Your task to perform on an android device: change alarm snooze length Image 0: 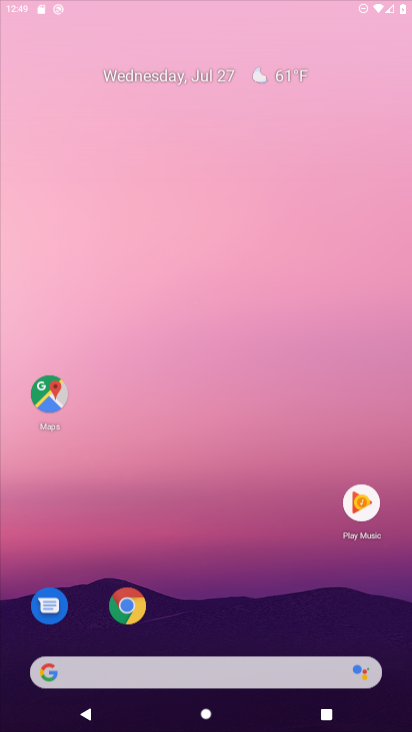
Step 0: press home button
Your task to perform on an android device: change alarm snooze length Image 1: 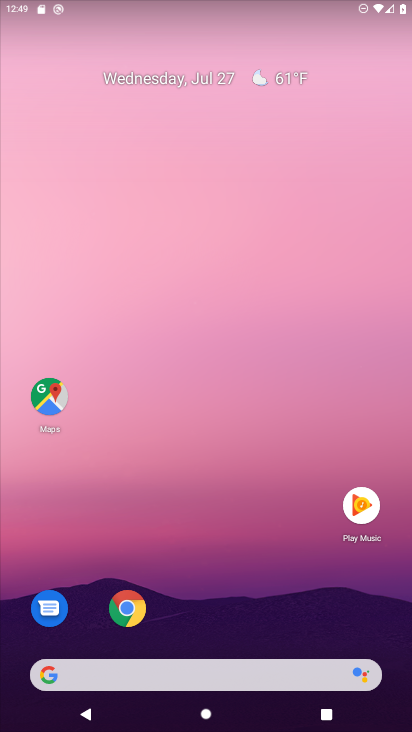
Step 1: drag from (306, 312) to (321, 188)
Your task to perform on an android device: change alarm snooze length Image 2: 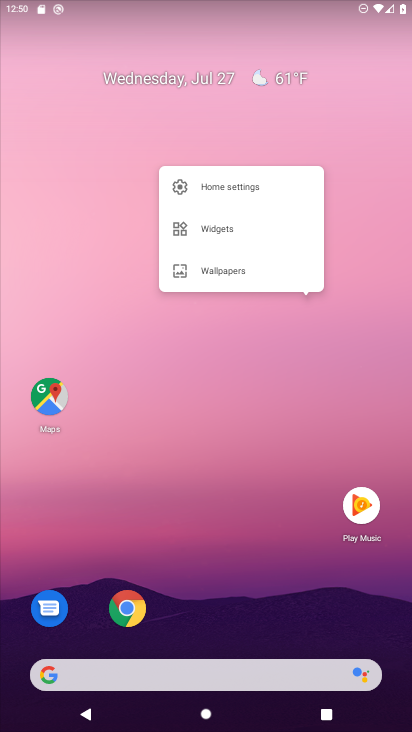
Step 2: drag from (275, 577) to (251, 190)
Your task to perform on an android device: change alarm snooze length Image 3: 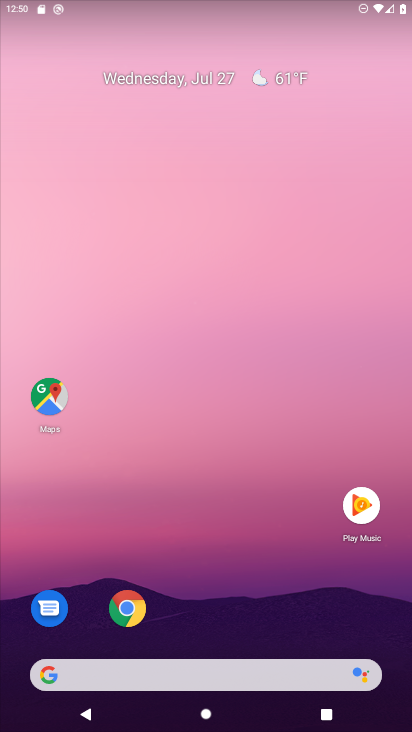
Step 3: press home button
Your task to perform on an android device: change alarm snooze length Image 4: 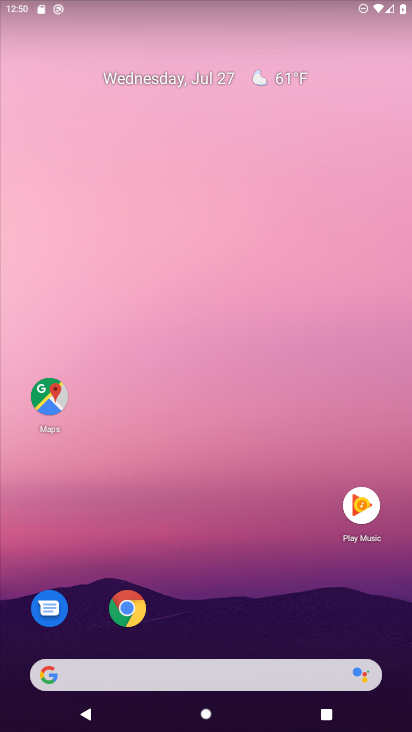
Step 4: drag from (284, 604) to (274, 71)
Your task to perform on an android device: change alarm snooze length Image 5: 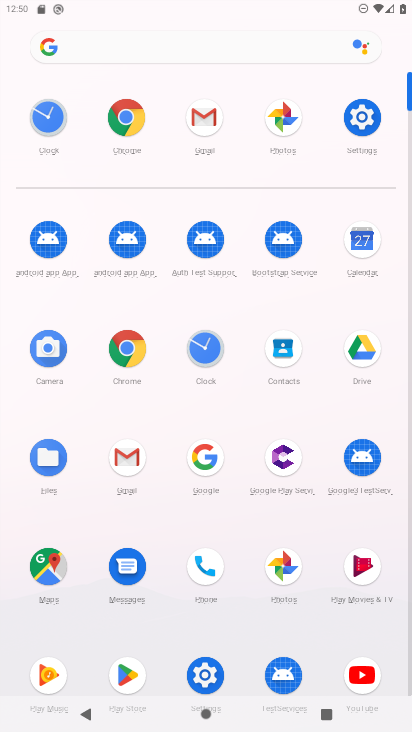
Step 5: click (213, 359)
Your task to perform on an android device: change alarm snooze length Image 6: 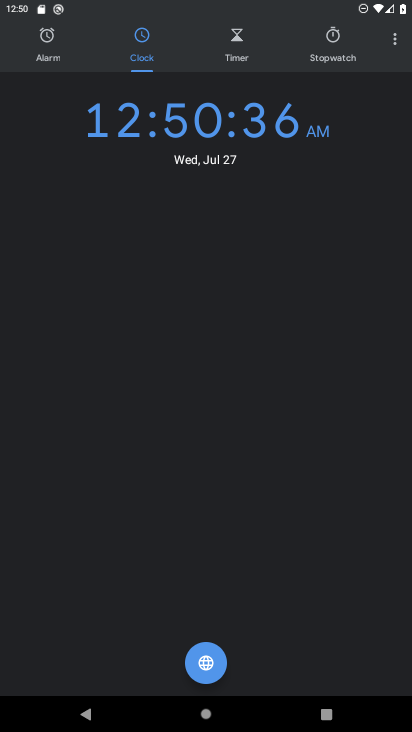
Step 6: click (393, 43)
Your task to perform on an android device: change alarm snooze length Image 7: 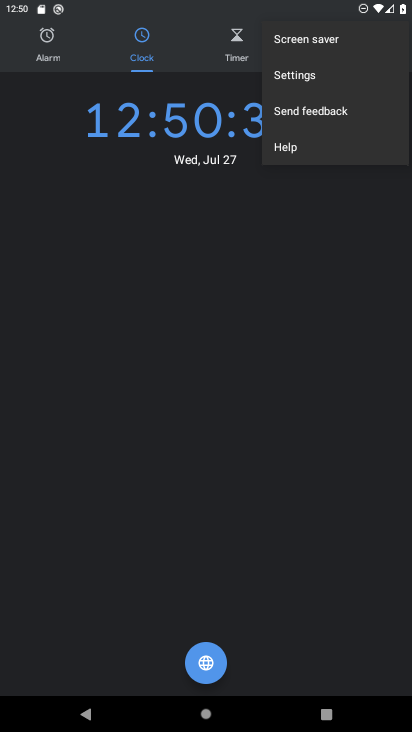
Step 7: click (343, 75)
Your task to perform on an android device: change alarm snooze length Image 8: 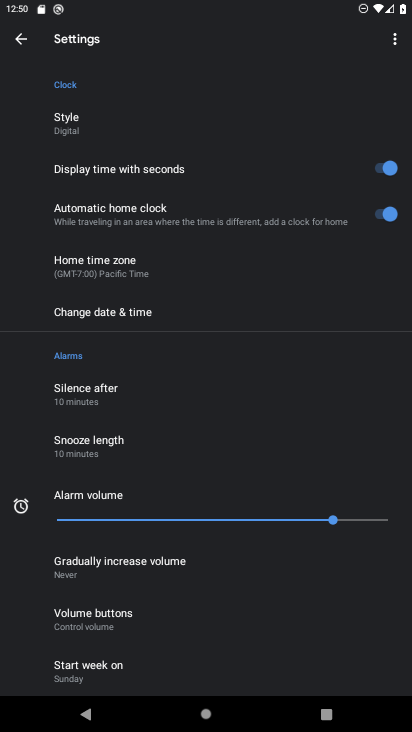
Step 8: drag from (247, 558) to (253, 524)
Your task to perform on an android device: change alarm snooze length Image 9: 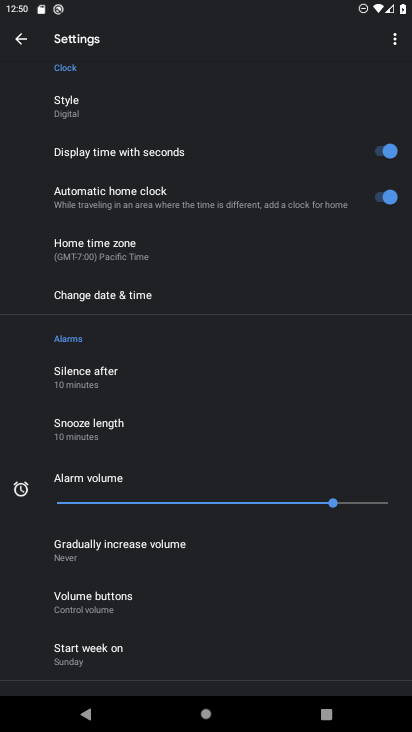
Step 9: drag from (253, 585) to (257, 536)
Your task to perform on an android device: change alarm snooze length Image 10: 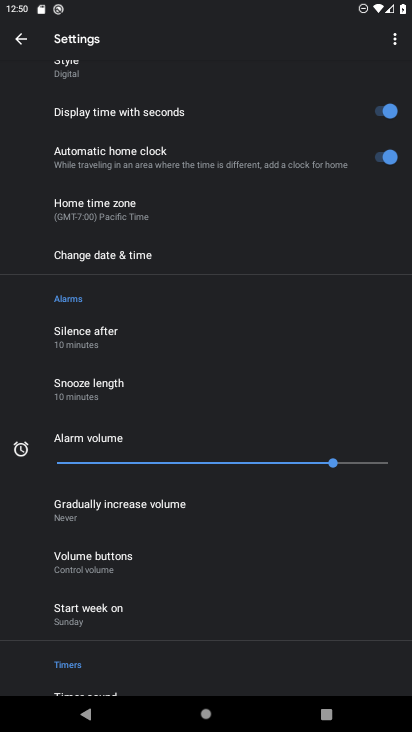
Step 10: drag from (260, 605) to (263, 547)
Your task to perform on an android device: change alarm snooze length Image 11: 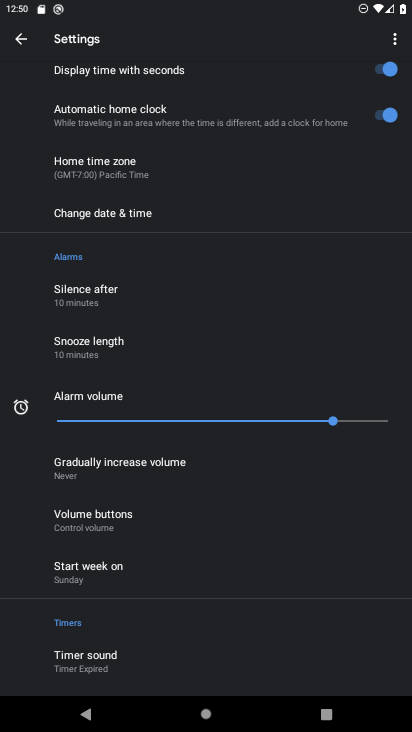
Step 11: drag from (264, 596) to (268, 521)
Your task to perform on an android device: change alarm snooze length Image 12: 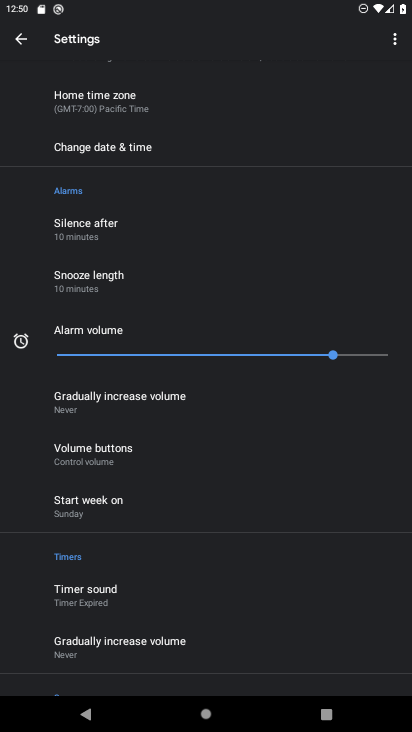
Step 12: drag from (265, 570) to (265, 498)
Your task to perform on an android device: change alarm snooze length Image 13: 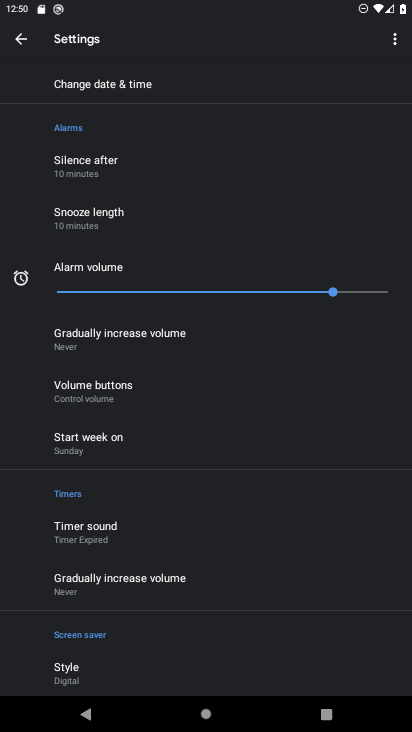
Step 13: drag from (273, 579) to (274, 507)
Your task to perform on an android device: change alarm snooze length Image 14: 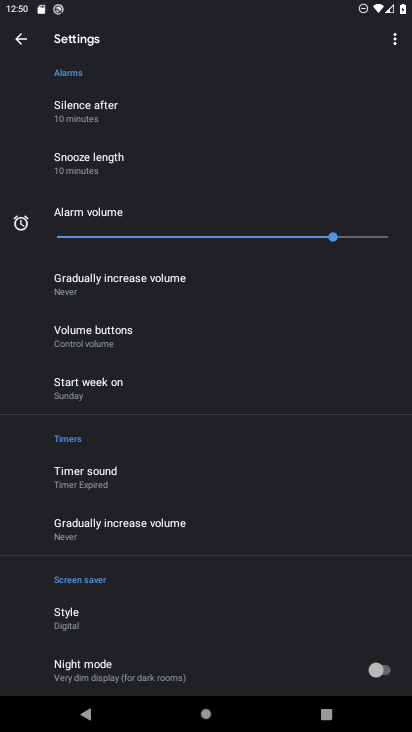
Step 14: drag from (262, 606) to (258, 499)
Your task to perform on an android device: change alarm snooze length Image 15: 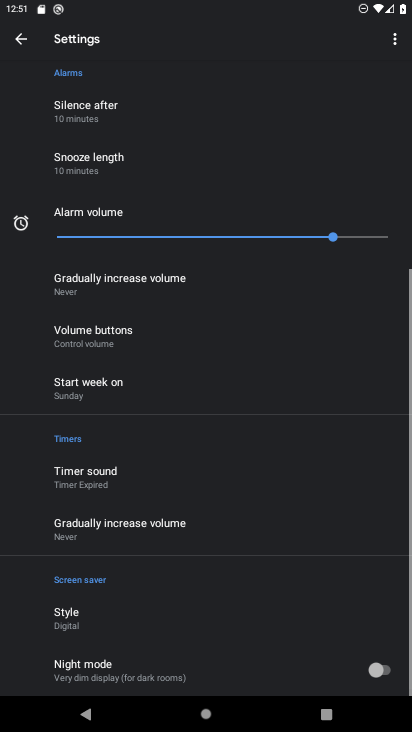
Step 15: drag from (267, 387) to (263, 461)
Your task to perform on an android device: change alarm snooze length Image 16: 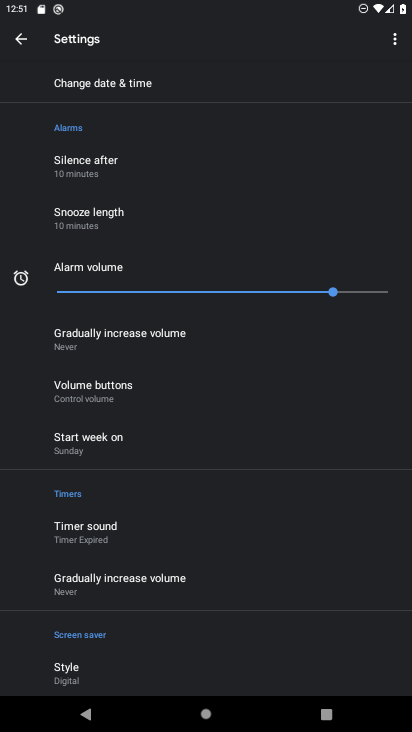
Step 16: drag from (263, 354) to (262, 424)
Your task to perform on an android device: change alarm snooze length Image 17: 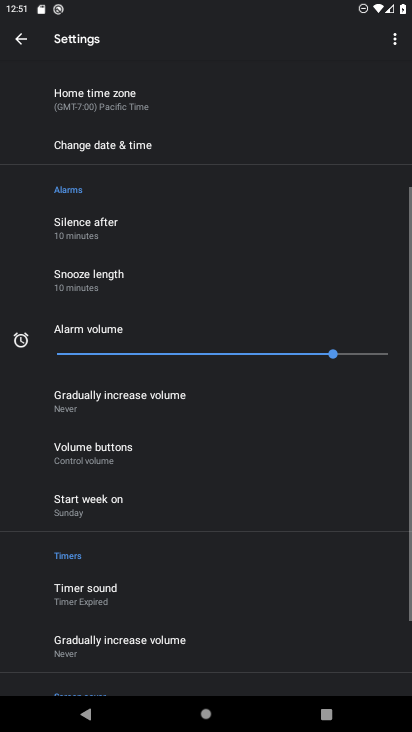
Step 17: drag from (273, 316) to (268, 538)
Your task to perform on an android device: change alarm snooze length Image 18: 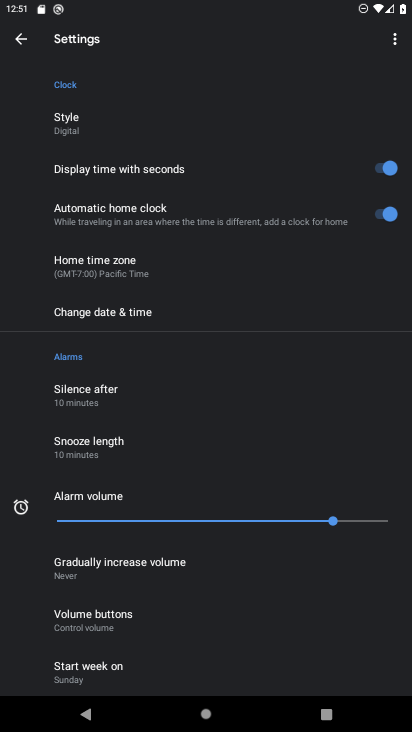
Step 18: click (125, 450)
Your task to perform on an android device: change alarm snooze length Image 19: 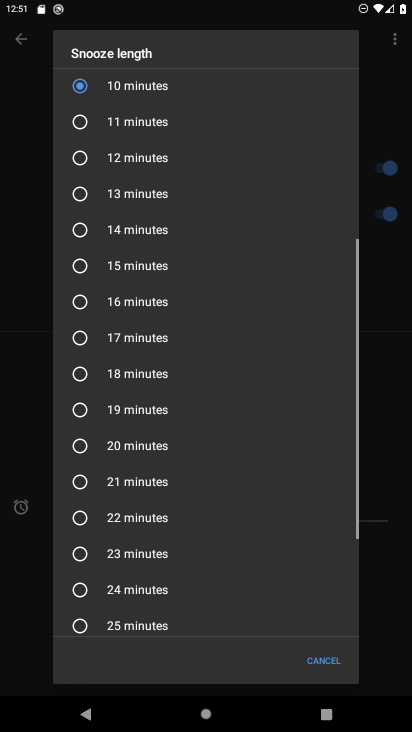
Step 19: click (125, 450)
Your task to perform on an android device: change alarm snooze length Image 20: 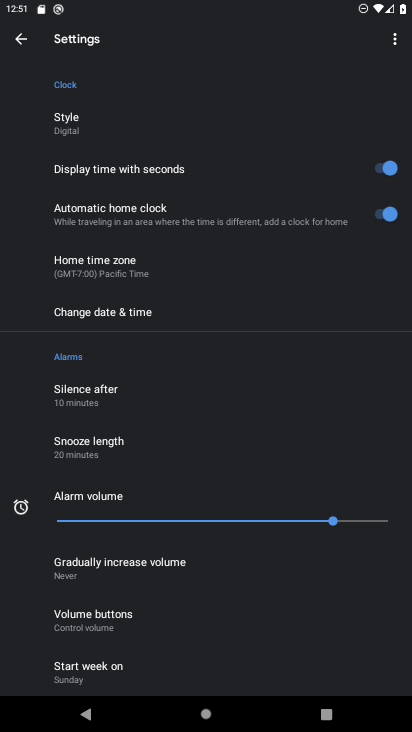
Step 20: task complete